Your task to perform on an android device: Is it going to rain tomorrow? Image 0: 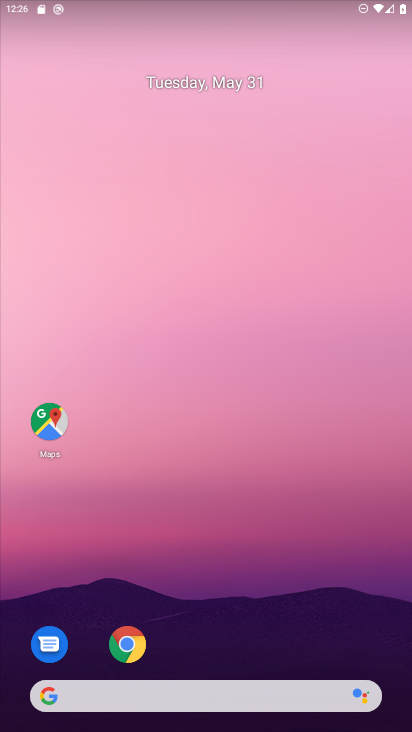
Step 0: drag from (221, 644) to (269, 162)
Your task to perform on an android device: Is it going to rain tomorrow? Image 1: 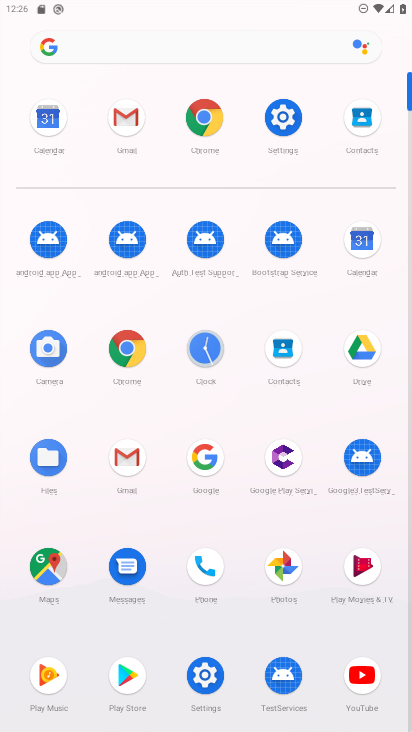
Step 1: drag from (242, 621) to (247, 208)
Your task to perform on an android device: Is it going to rain tomorrow? Image 2: 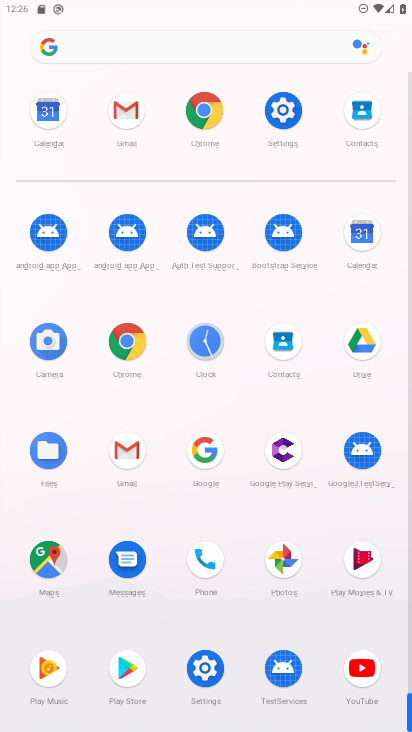
Step 2: click (194, 50)
Your task to perform on an android device: Is it going to rain tomorrow? Image 3: 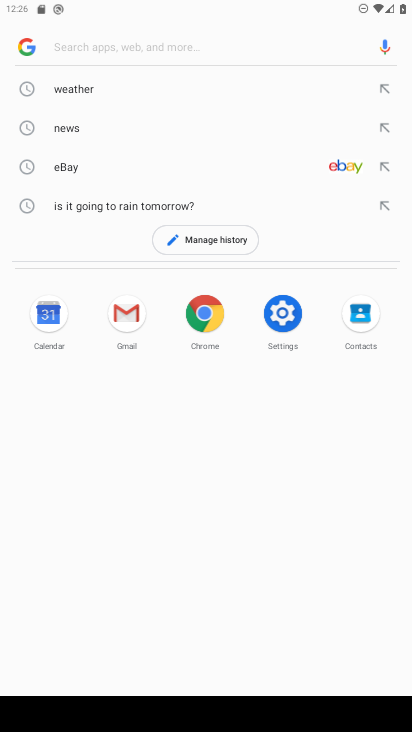
Step 3: type "rain tomorrow?"
Your task to perform on an android device: Is it going to rain tomorrow? Image 4: 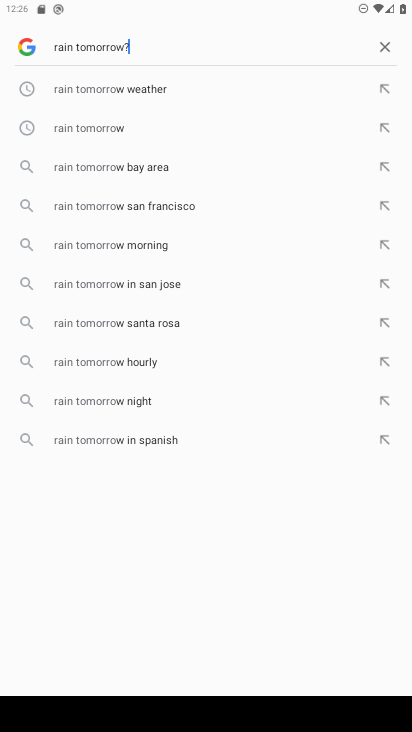
Step 4: type ""
Your task to perform on an android device: Is it going to rain tomorrow? Image 5: 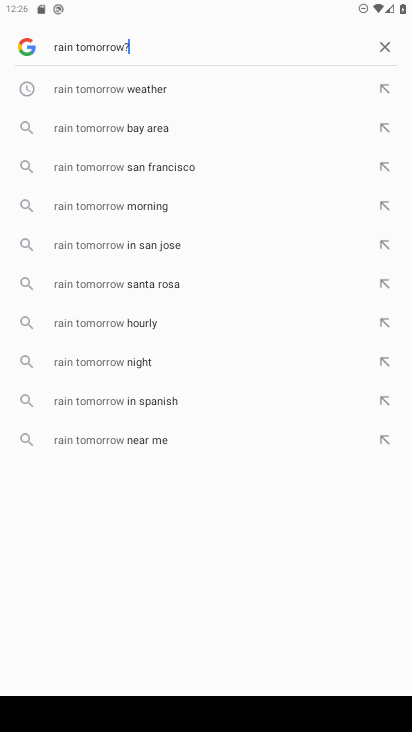
Step 5: click (80, 88)
Your task to perform on an android device: Is it going to rain tomorrow? Image 6: 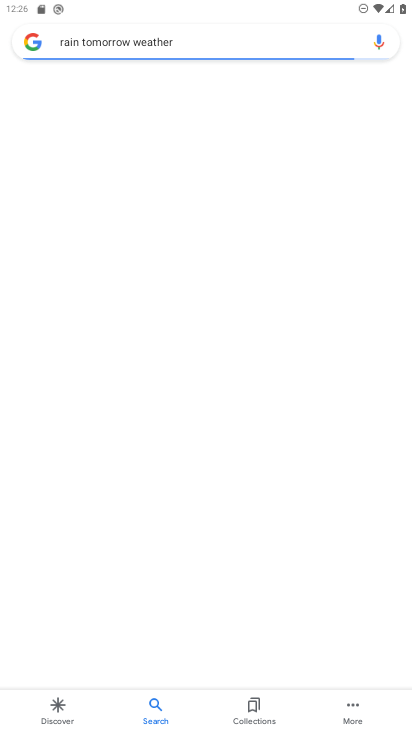
Step 6: task complete